Your task to perform on an android device: delete browsing data in the chrome app Image 0: 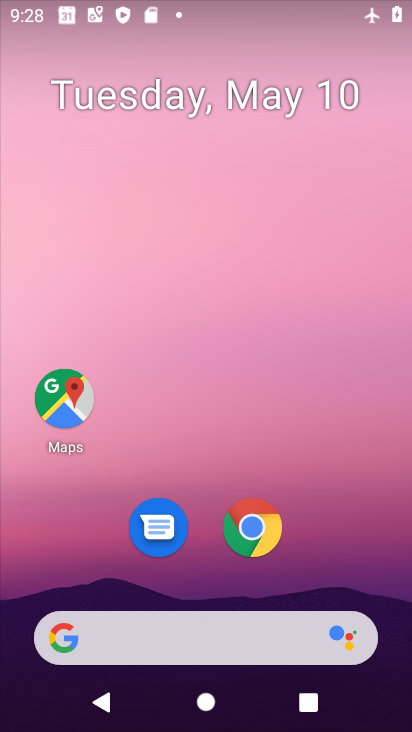
Step 0: drag from (325, 550) to (338, 203)
Your task to perform on an android device: delete browsing data in the chrome app Image 1: 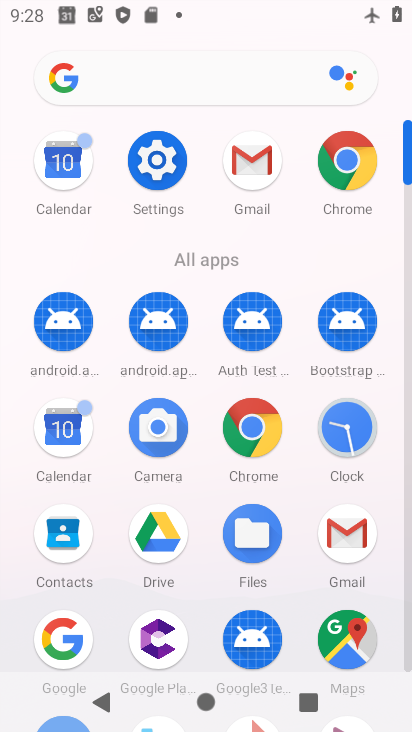
Step 1: click (362, 199)
Your task to perform on an android device: delete browsing data in the chrome app Image 2: 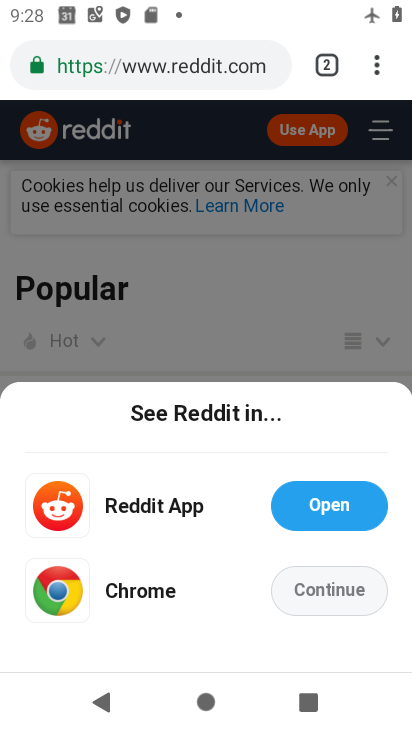
Step 2: click (295, 602)
Your task to perform on an android device: delete browsing data in the chrome app Image 3: 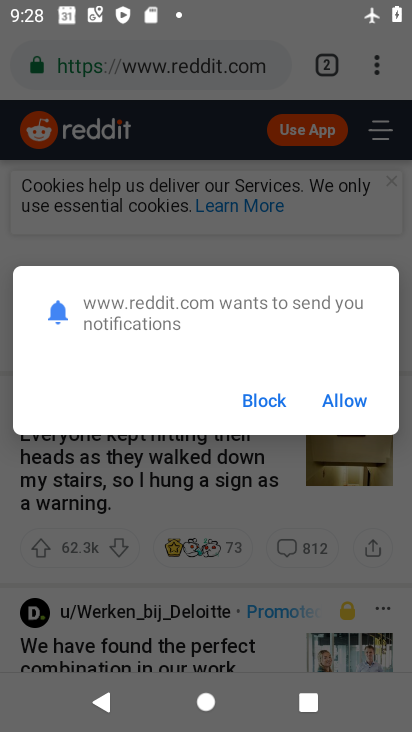
Step 3: click (378, 75)
Your task to perform on an android device: delete browsing data in the chrome app Image 4: 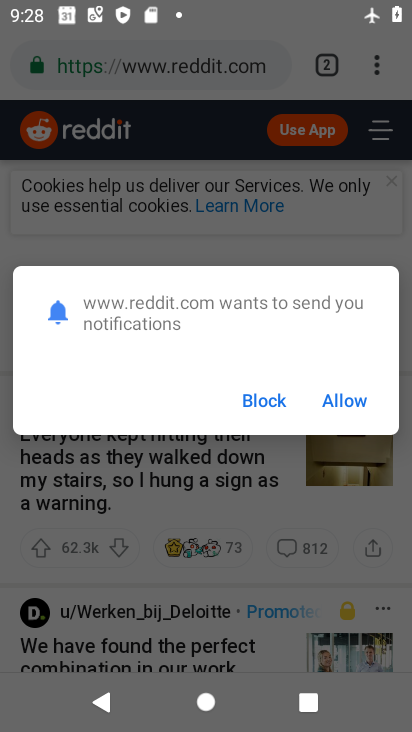
Step 4: click (267, 406)
Your task to perform on an android device: delete browsing data in the chrome app Image 5: 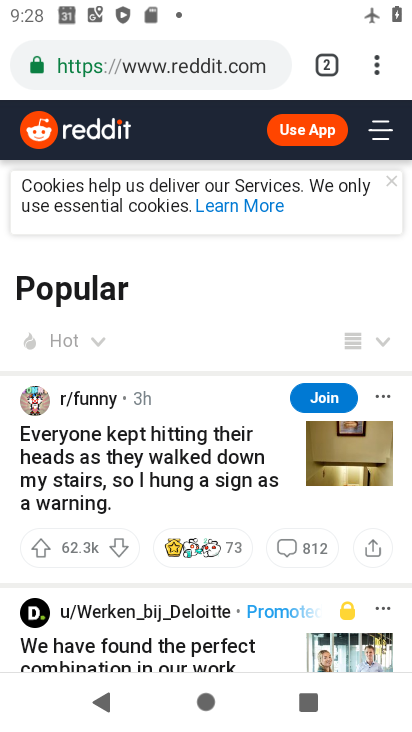
Step 5: click (381, 69)
Your task to perform on an android device: delete browsing data in the chrome app Image 6: 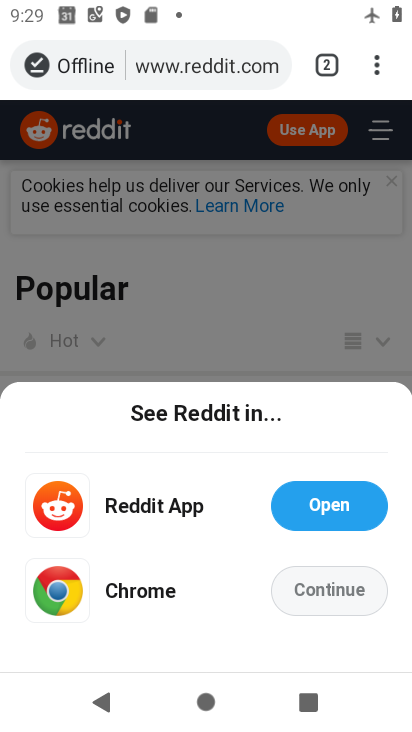
Step 6: click (378, 65)
Your task to perform on an android device: delete browsing data in the chrome app Image 7: 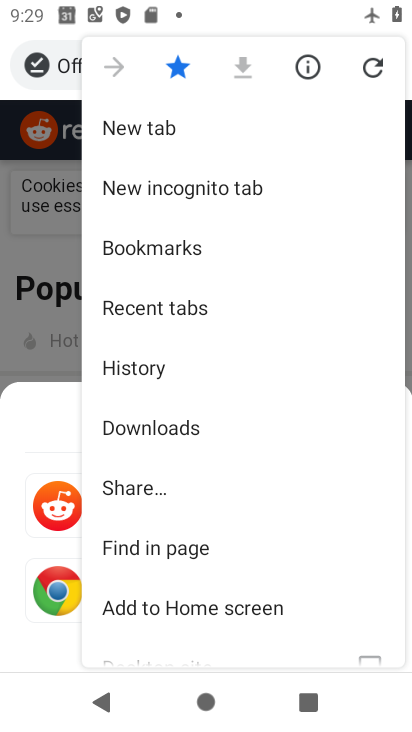
Step 7: click (154, 376)
Your task to perform on an android device: delete browsing data in the chrome app Image 8: 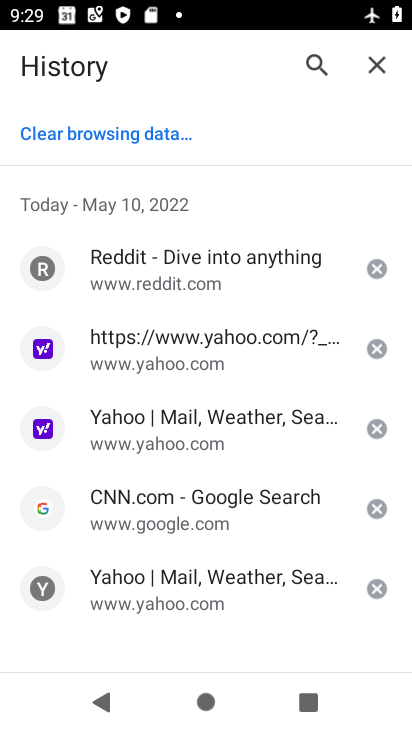
Step 8: click (147, 131)
Your task to perform on an android device: delete browsing data in the chrome app Image 9: 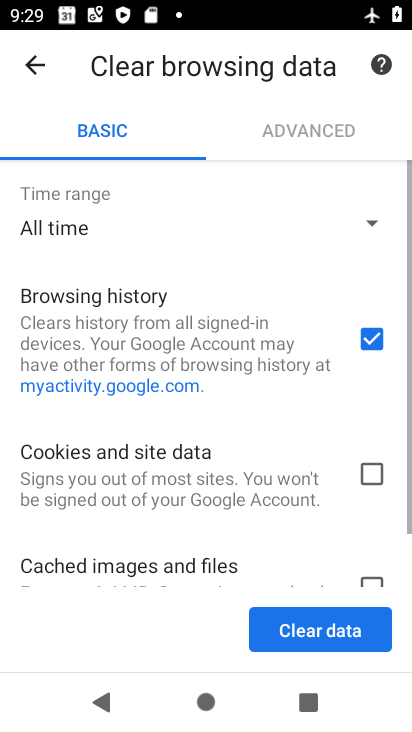
Step 9: click (375, 477)
Your task to perform on an android device: delete browsing data in the chrome app Image 10: 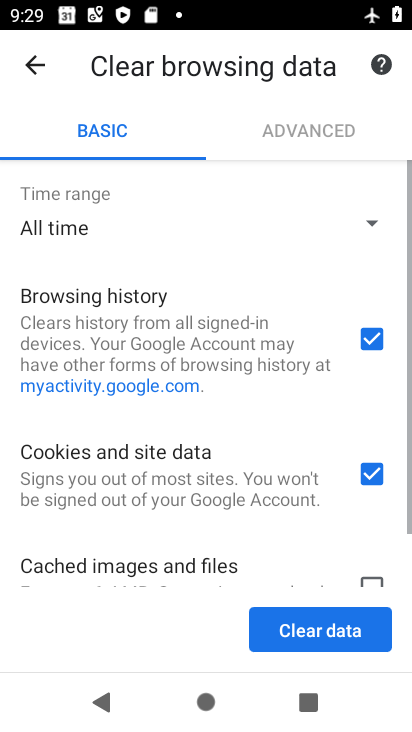
Step 10: click (380, 578)
Your task to perform on an android device: delete browsing data in the chrome app Image 11: 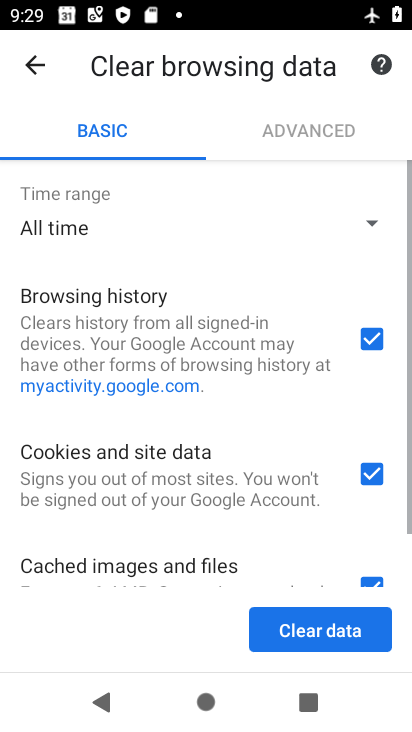
Step 11: click (317, 630)
Your task to perform on an android device: delete browsing data in the chrome app Image 12: 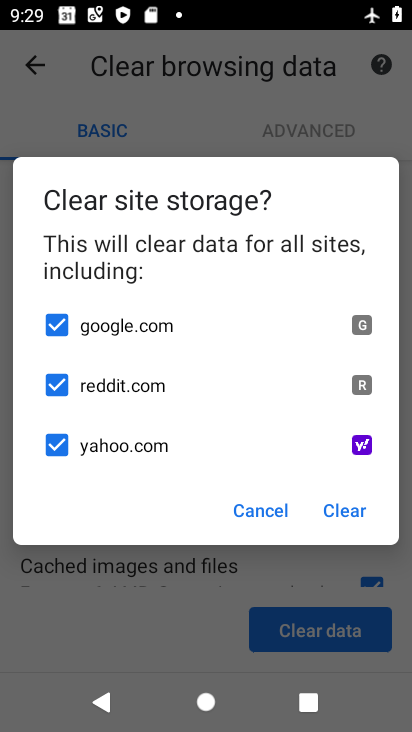
Step 12: click (368, 508)
Your task to perform on an android device: delete browsing data in the chrome app Image 13: 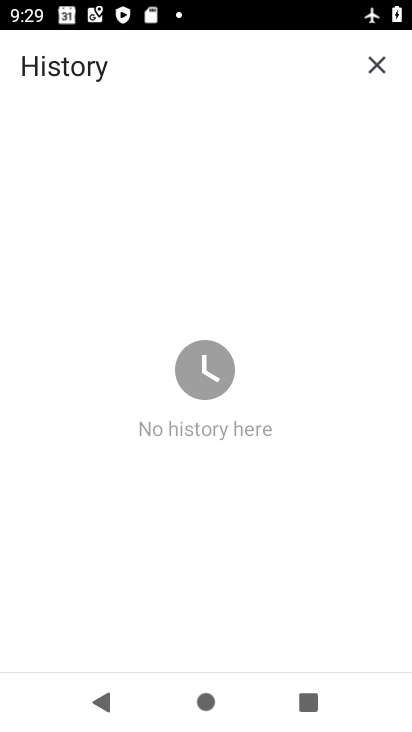
Step 13: task complete